Your task to perform on an android device: open app "Viber Messenger" (install if not already installed), go to login, and select forgot password Image 0: 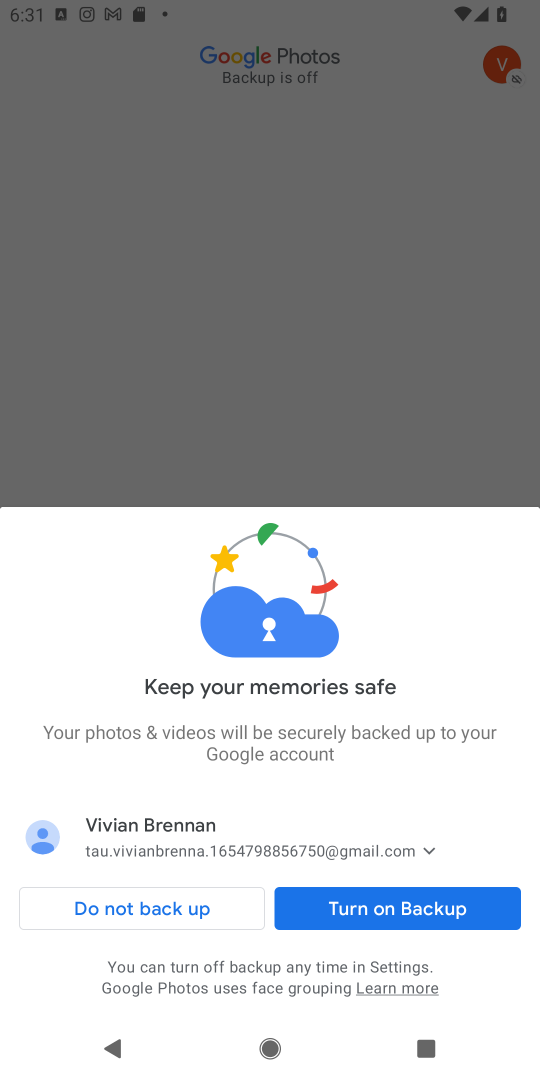
Step 0: press home button
Your task to perform on an android device: open app "Viber Messenger" (install if not already installed), go to login, and select forgot password Image 1: 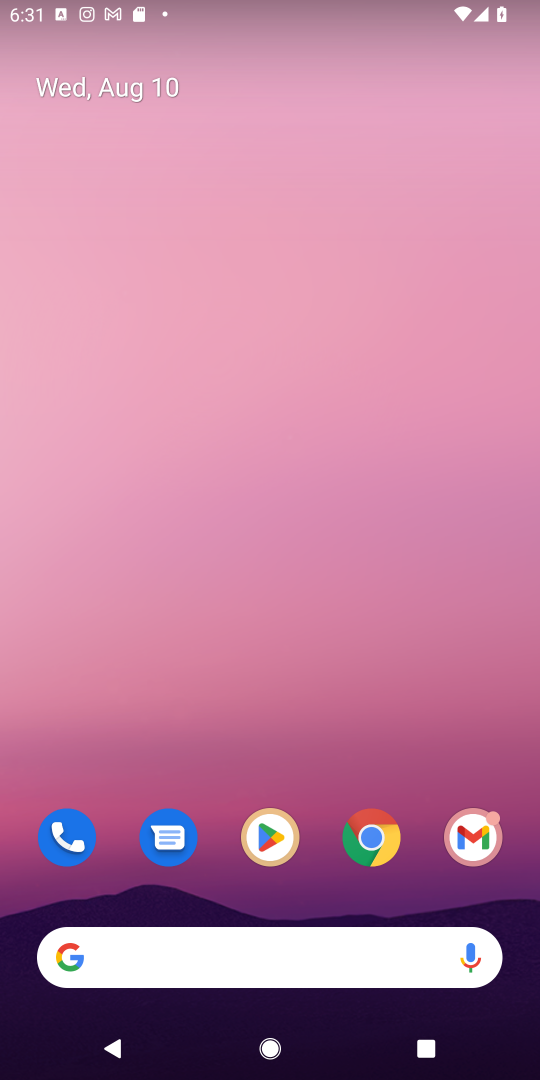
Step 1: click (274, 840)
Your task to perform on an android device: open app "Viber Messenger" (install if not already installed), go to login, and select forgot password Image 2: 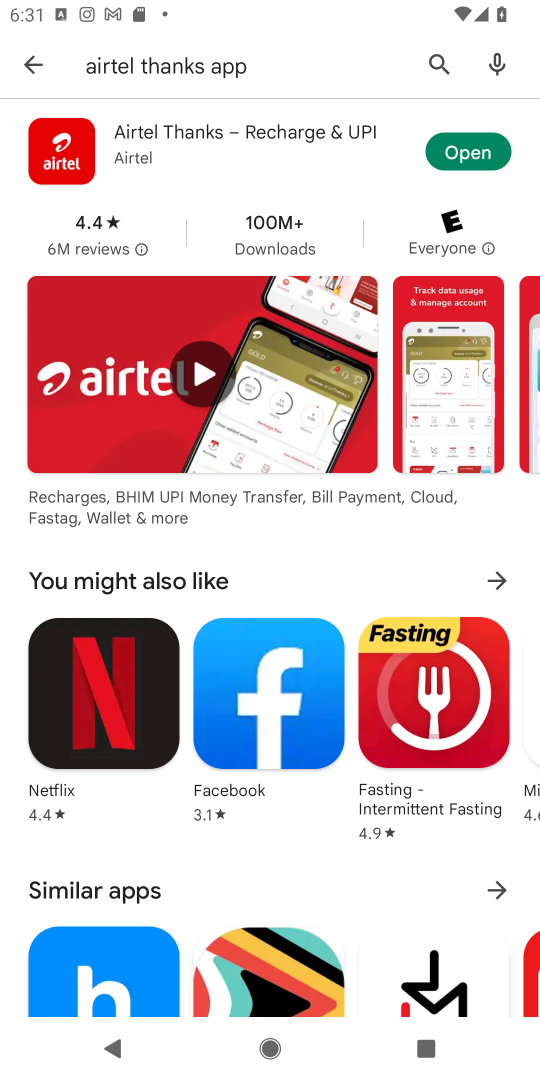
Step 2: click (434, 48)
Your task to perform on an android device: open app "Viber Messenger" (install if not already installed), go to login, and select forgot password Image 3: 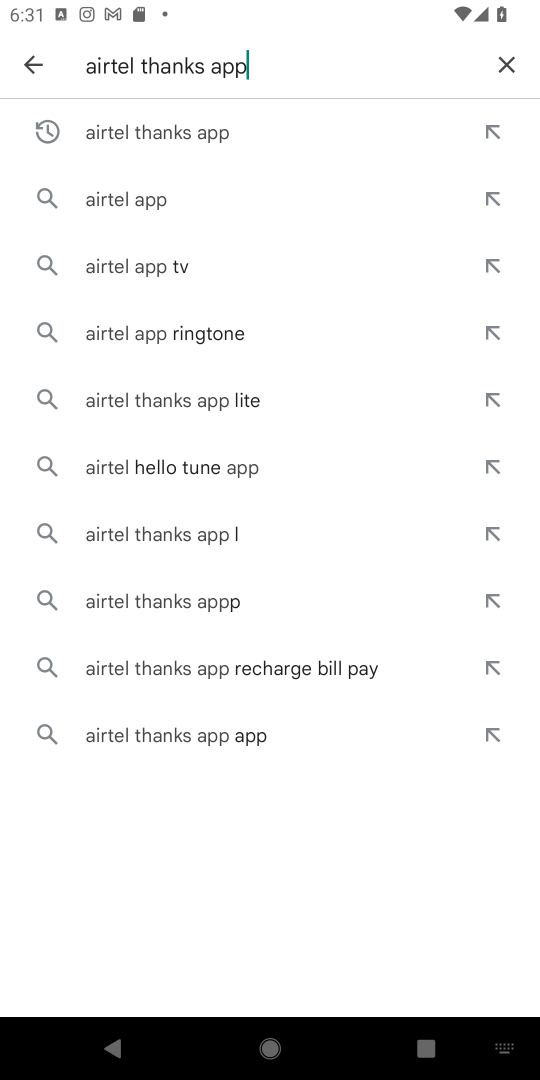
Step 3: click (509, 59)
Your task to perform on an android device: open app "Viber Messenger" (install if not already installed), go to login, and select forgot password Image 4: 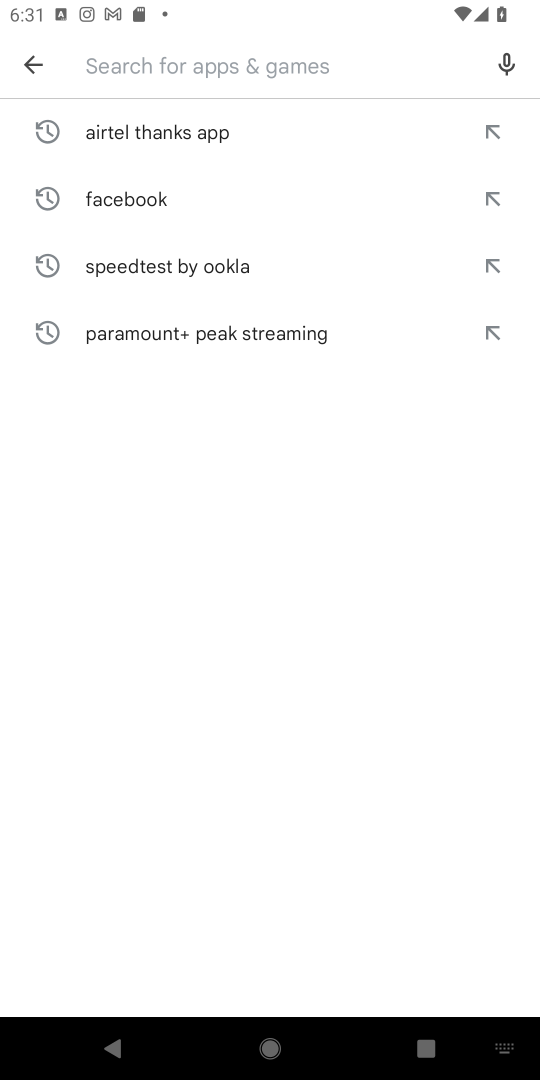
Step 4: type "Viber Messenger"
Your task to perform on an android device: open app "Viber Messenger" (install if not already installed), go to login, and select forgot password Image 5: 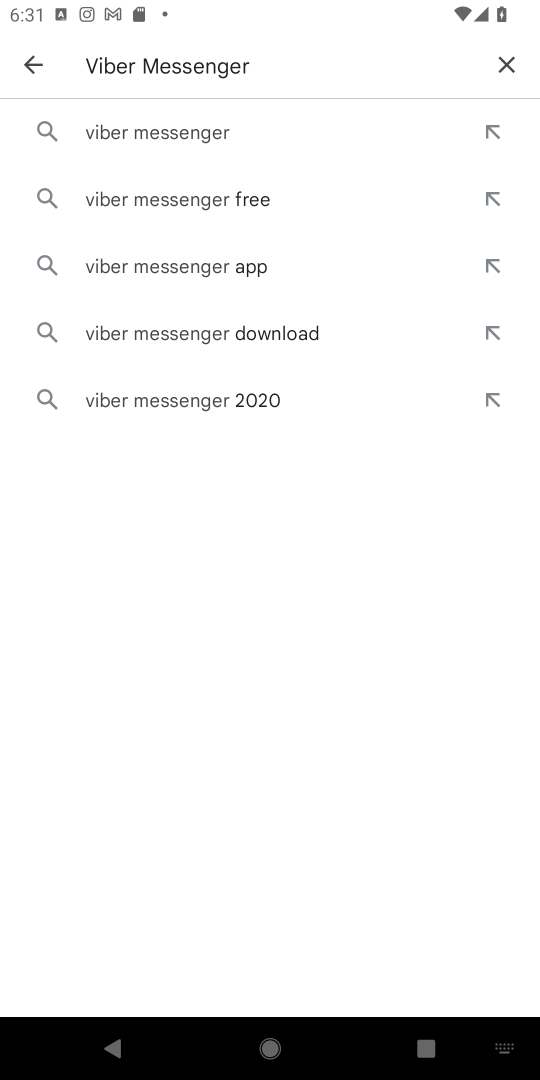
Step 5: click (193, 130)
Your task to perform on an android device: open app "Viber Messenger" (install if not already installed), go to login, and select forgot password Image 6: 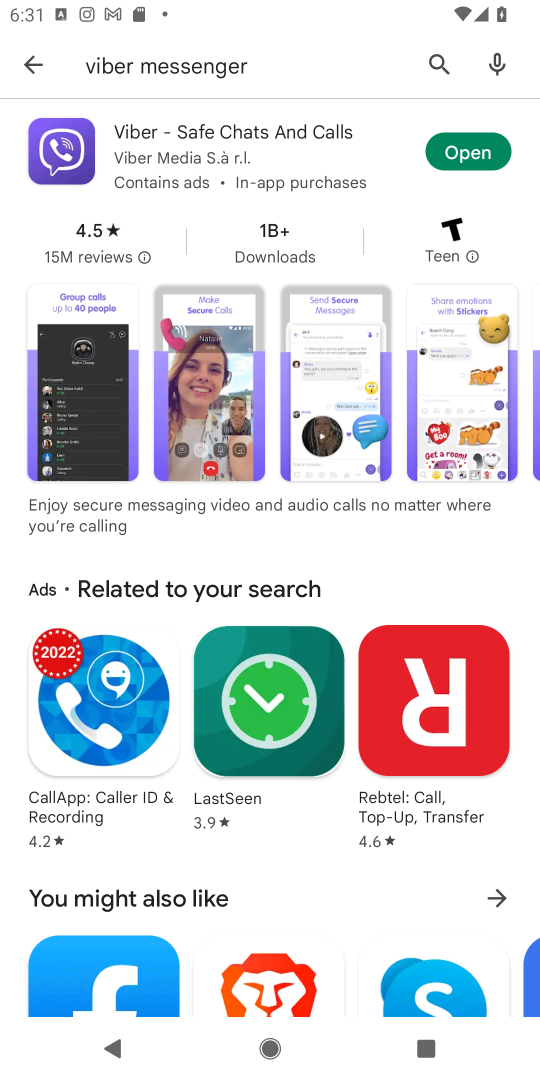
Step 6: click (449, 149)
Your task to perform on an android device: open app "Viber Messenger" (install if not already installed), go to login, and select forgot password Image 7: 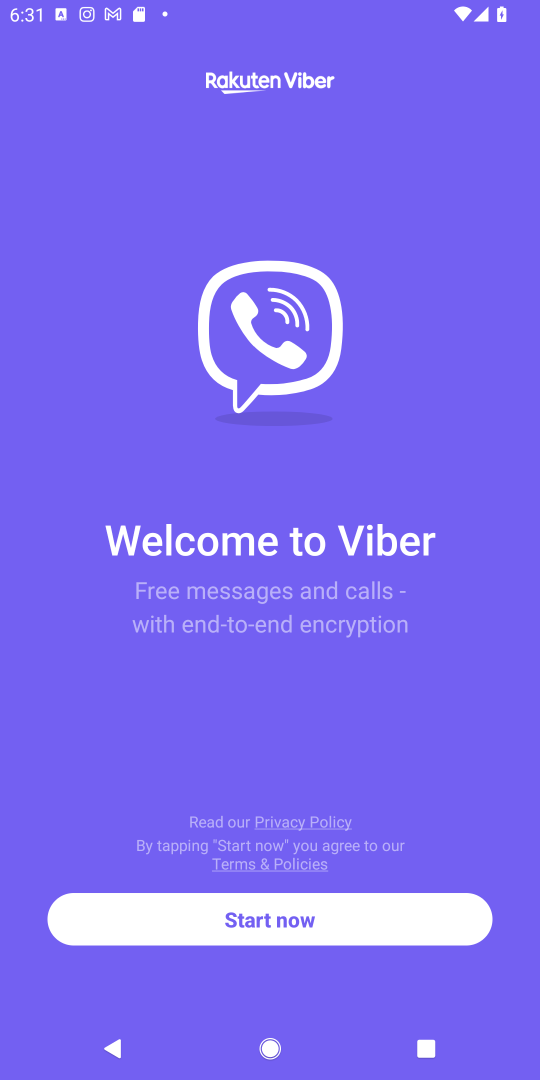
Step 7: click (286, 918)
Your task to perform on an android device: open app "Viber Messenger" (install if not already installed), go to login, and select forgot password Image 8: 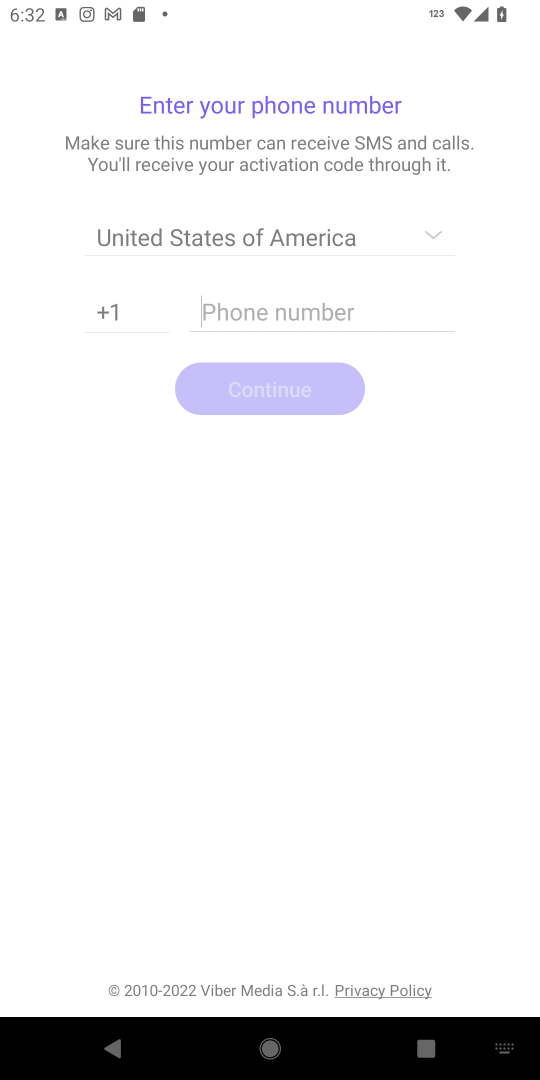
Step 8: task complete